Your task to perform on an android device: toggle notification dots Image 0: 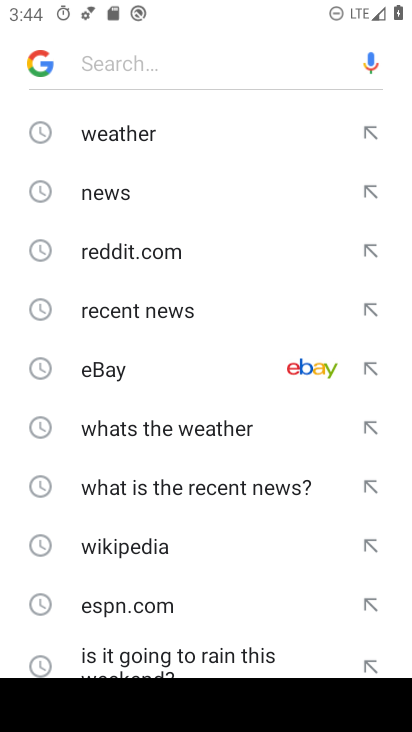
Step 0: press home button
Your task to perform on an android device: toggle notification dots Image 1: 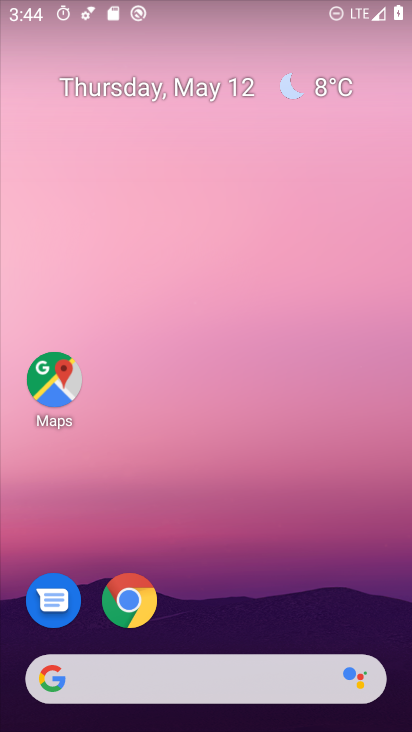
Step 1: drag from (193, 707) to (199, 198)
Your task to perform on an android device: toggle notification dots Image 2: 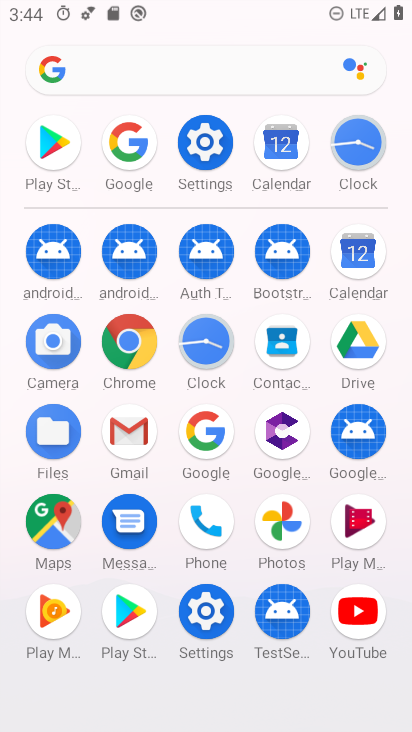
Step 2: click (200, 143)
Your task to perform on an android device: toggle notification dots Image 3: 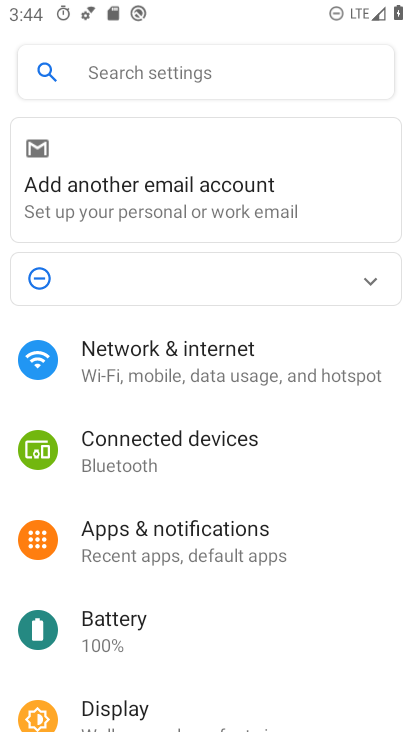
Step 3: click (146, 539)
Your task to perform on an android device: toggle notification dots Image 4: 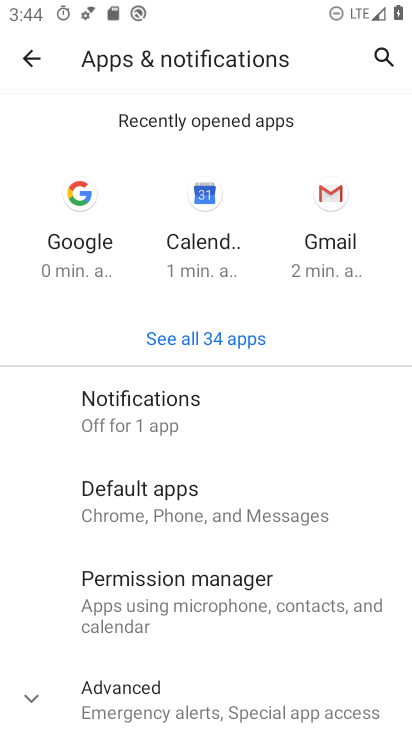
Step 4: click (135, 408)
Your task to perform on an android device: toggle notification dots Image 5: 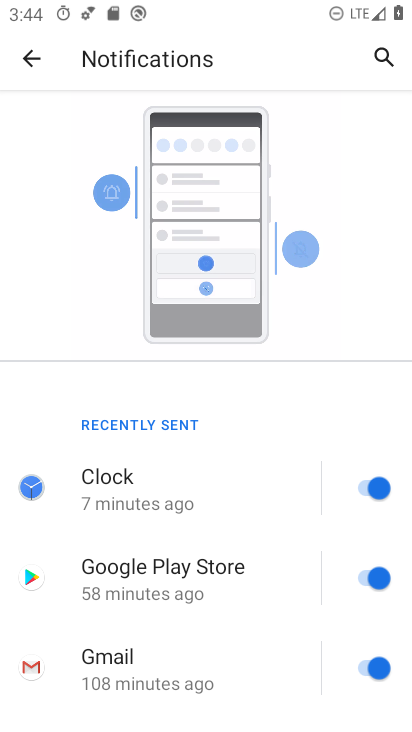
Step 5: drag from (106, 688) to (121, 346)
Your task to perform on an android device: toggle notification dots Image 6: 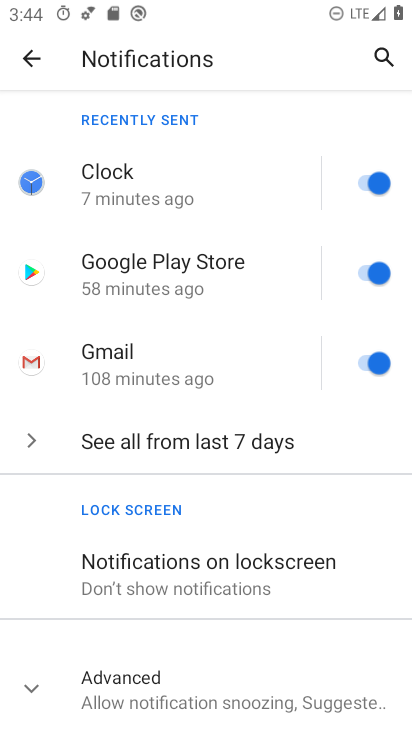
Step 6: click (119, 684)
Your task to perform on an android device: toggle notification dots Image 7: 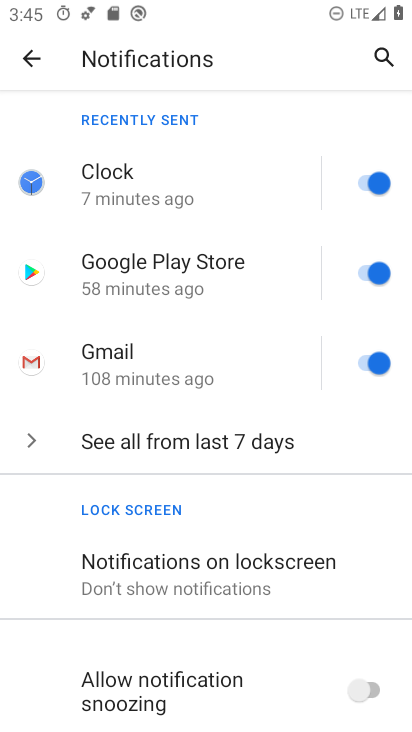
Step 7: drag from (123, 659) to (145, 535)
Your task to perform on an android device: toggle notification dots Image 8: 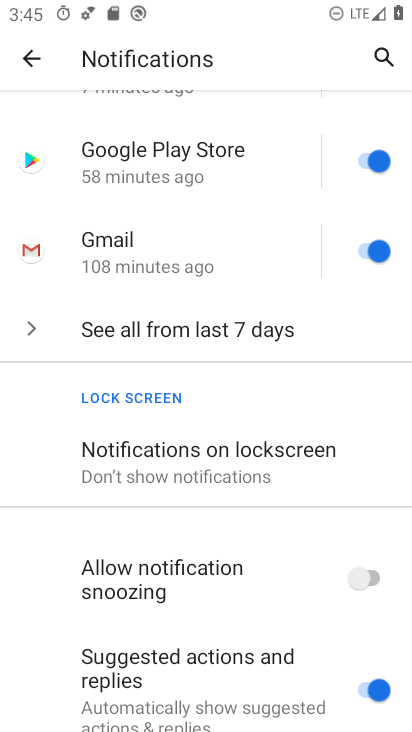
Step 8: drag from (199, 693) to (197, 404)
Your task to perform on an android device: toggle notification dots Image 9: 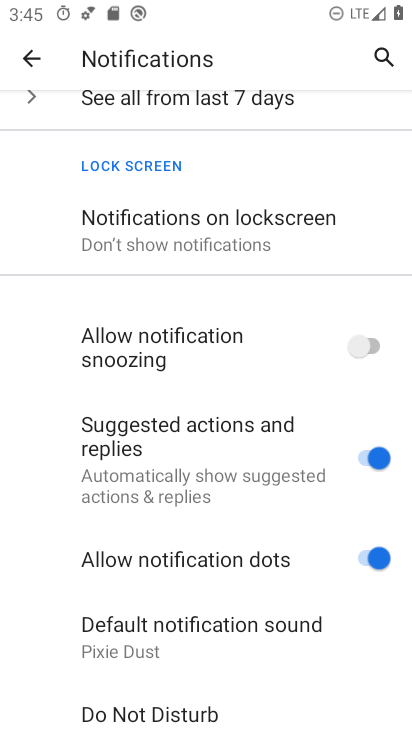
Step 9: click (367, 559)
Your task to perform on an android device: toggle notification dots Image 10: 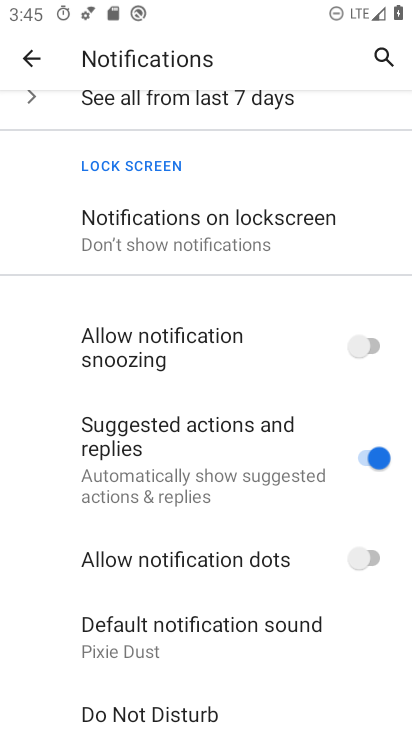
Step 10: task complete